Your task to perform on an android device: Do I have any events this weekend? Image 0: 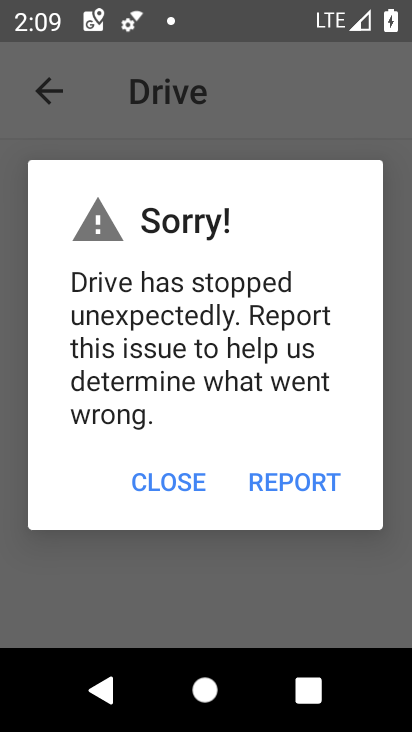
Step 0: press home button
Your task to perform on an android device: Do I have any events this weekend? Image 1: 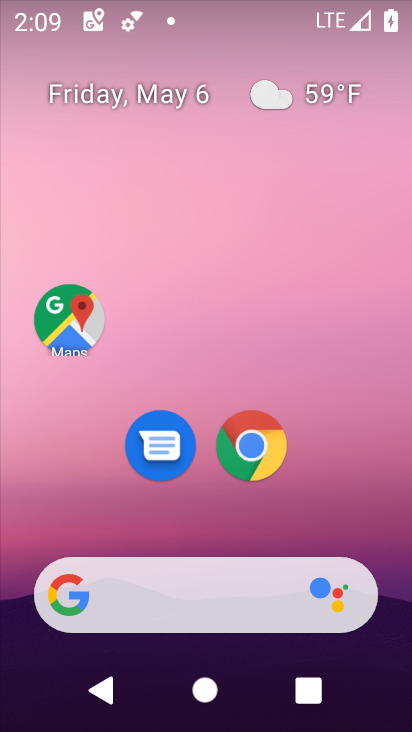
Step 1: drag from (332, 533) to (326, 2)
Your task to perform on an android device: Do I have any events this weekend? Image 2: 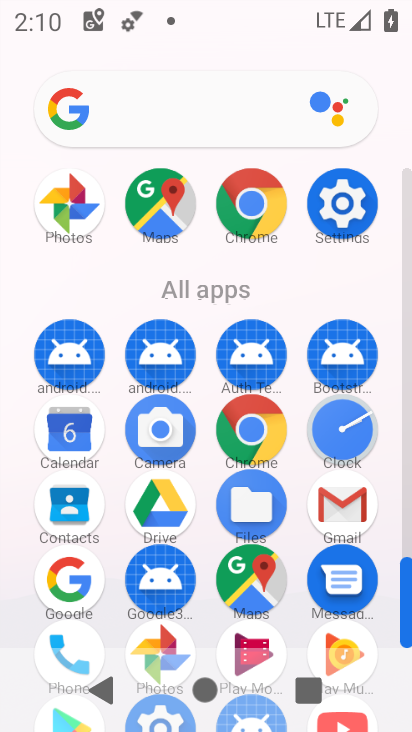
Step 2: click (67, 441)
Your task to perform on an android device: Do I have any events this weekend? Image 3: 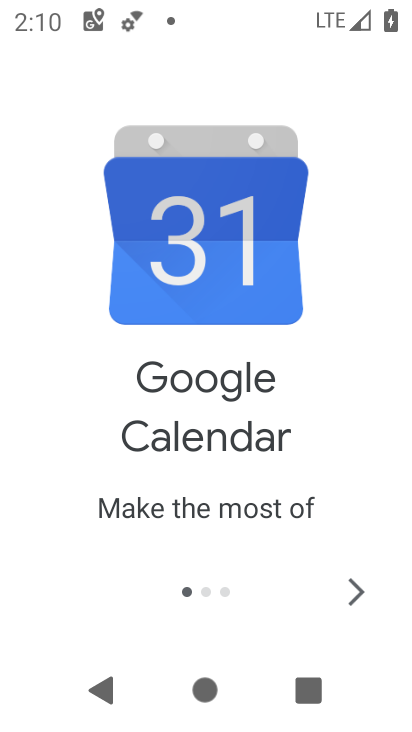
Step 3: click (359, 581)
Your task to perform on an android device: Do I have any events this weekend? Image 4: 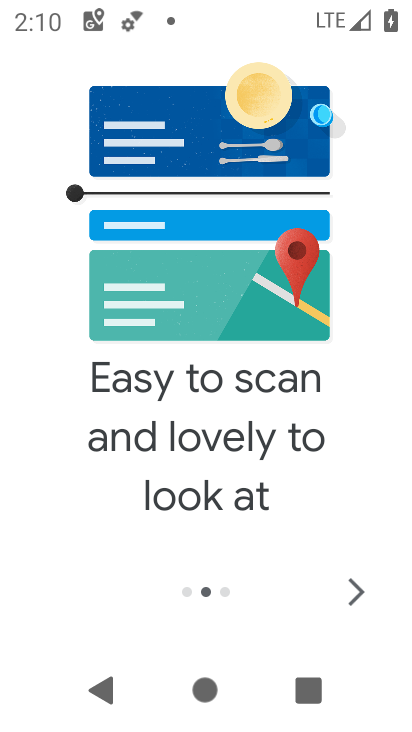
Step 4: click (359, 581)
Your task to perform on an android device: Do I have any events this weekend? Image 5: 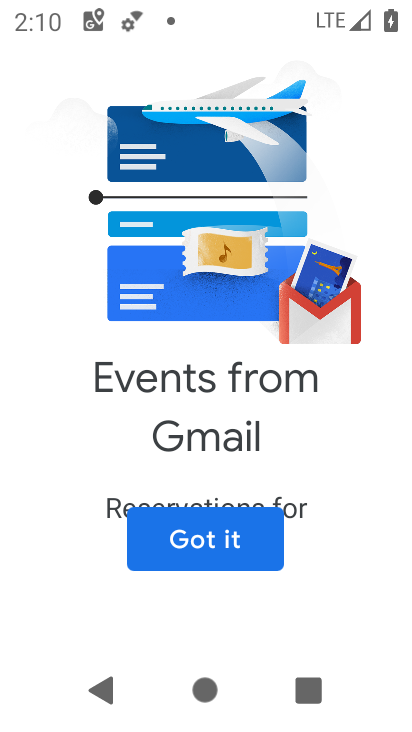
Step 5: click (253, 540)
Your task to perform on an android device: Do I have any events this weekend? Image 6: 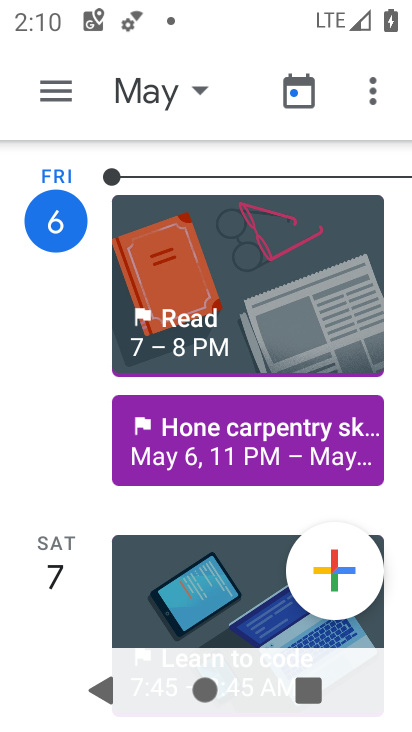
Step 6: click (184, 85)
Your task to perform on an android device: Do I have any events this weekend? Image 7: 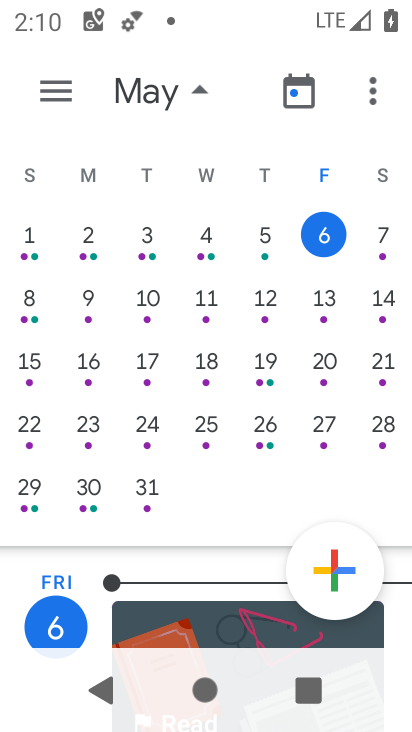
Step 7: click (379, 253)
Your task to perform on an android device: Do I have any events this weekend? Image 8: 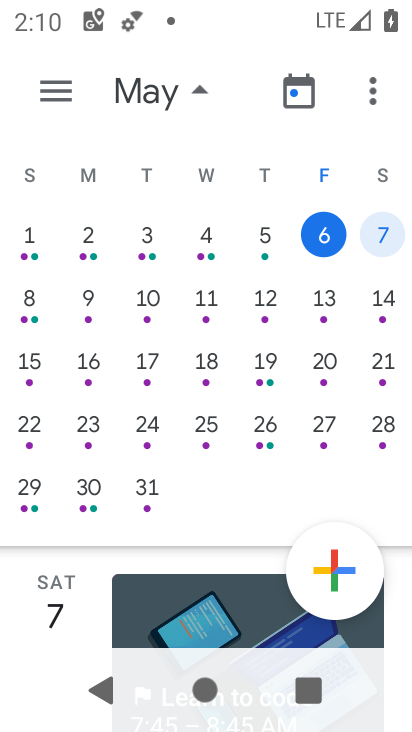
Step 8: drag from (136, 532) to (172, 149)
Your task to perform on an android device: Do I have any events this weekend? Image 9: 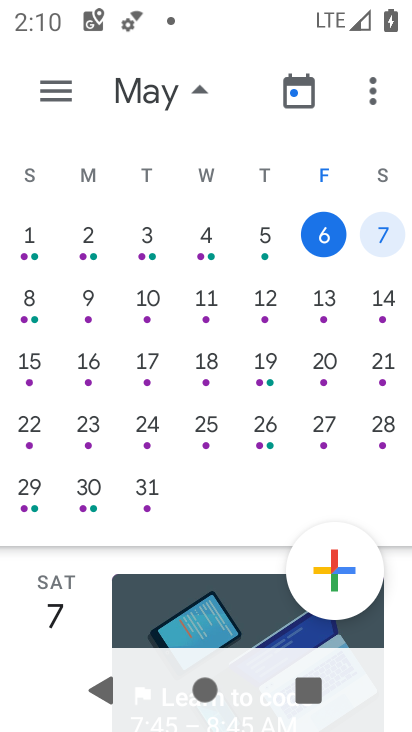
Step 9: click (177, 85)
Your task to perform on an android device: Do I have any events this weekend? Image 10: 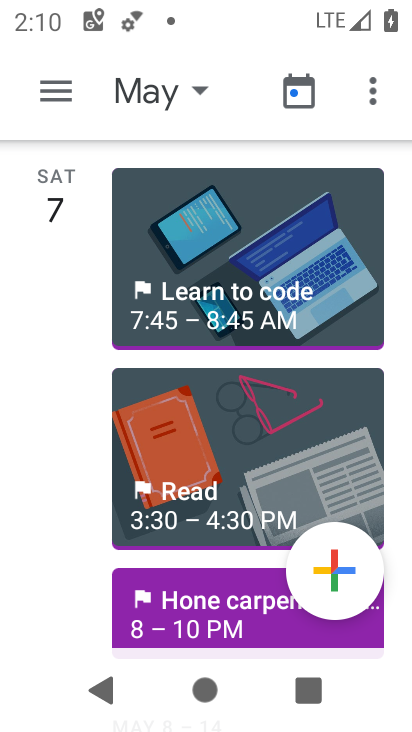
Step 10: task complete